Your task to perform on an android device: open app "Pinterest" (install if not already installed) and go to login screen Image 0: 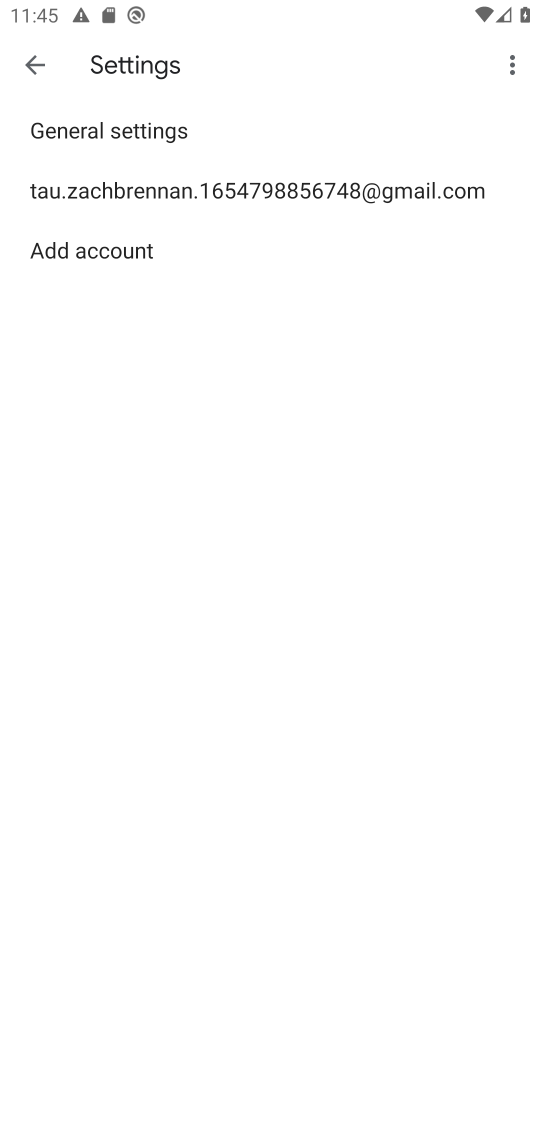
Step 0: press home button
Your task to perform on an android device: open app "Pinterest" (install if not already installed) and go to login screen Image 1: 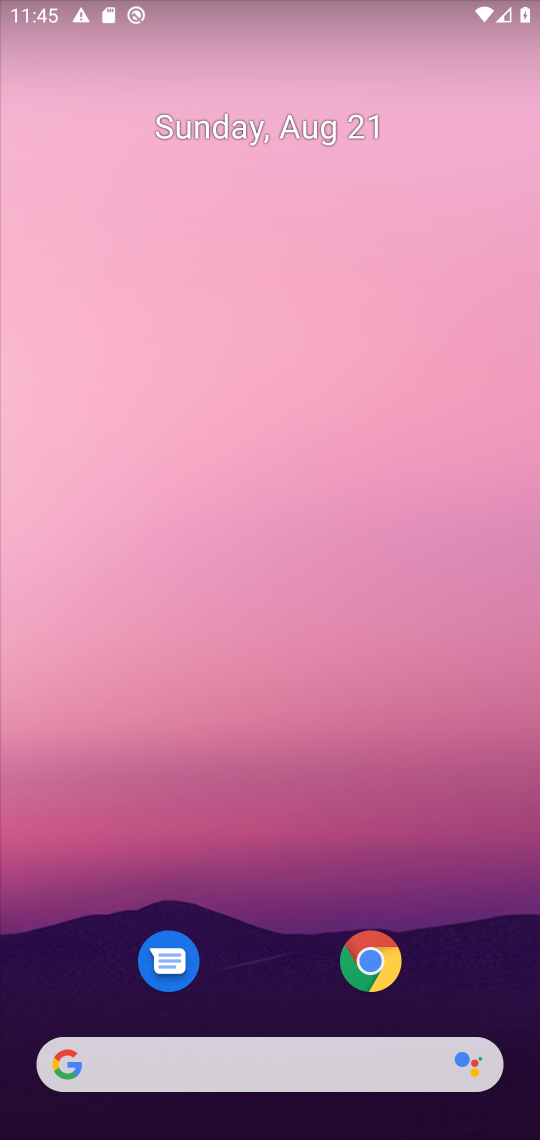
Step 1: drag from (474, 936) to (490, 130)
Your task to perform on an android device: open app "Pinterest" (install if not already installed) and go to login screen Image 2: 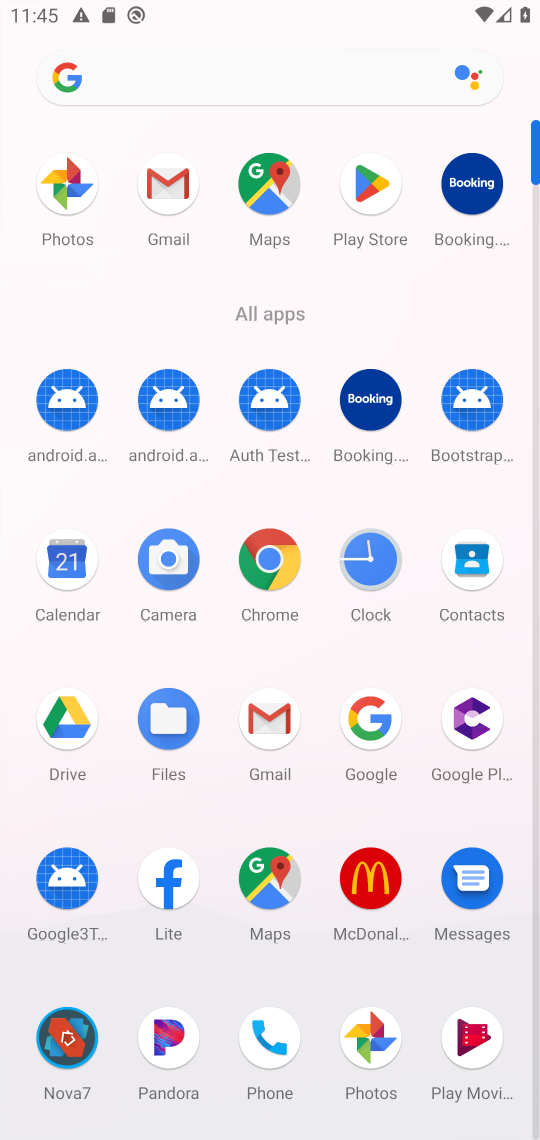
Step 2: click (368, 188)
Your task to perform on an android device: open app "Pinterest" (install if not already installed) and go to login screen Image 3: 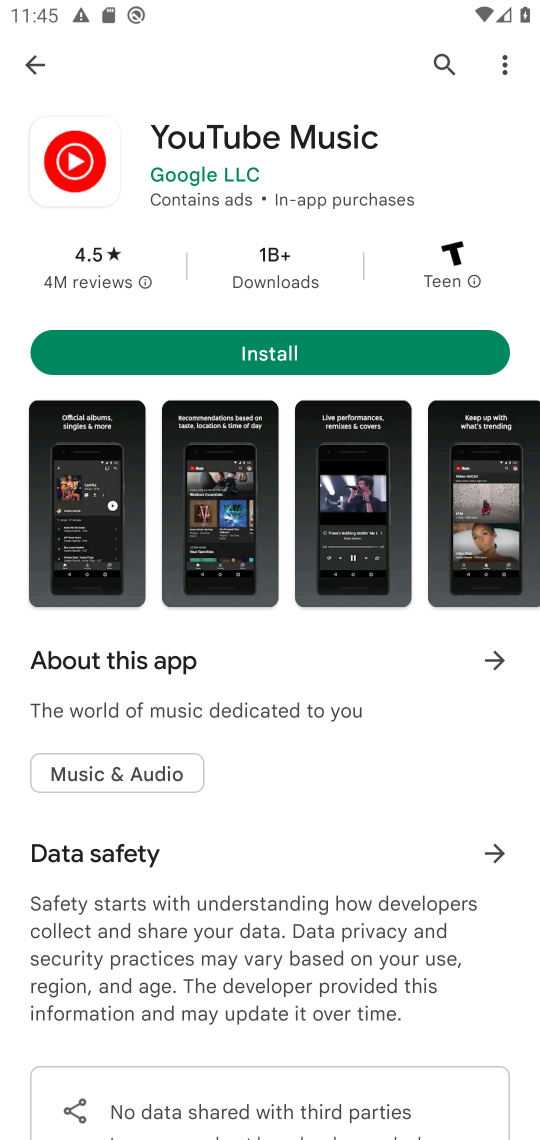
Step 3: press back button
Your task to perform on an android device: open app "Pinterest" (install if not already installed) and go to login screen Image 4: 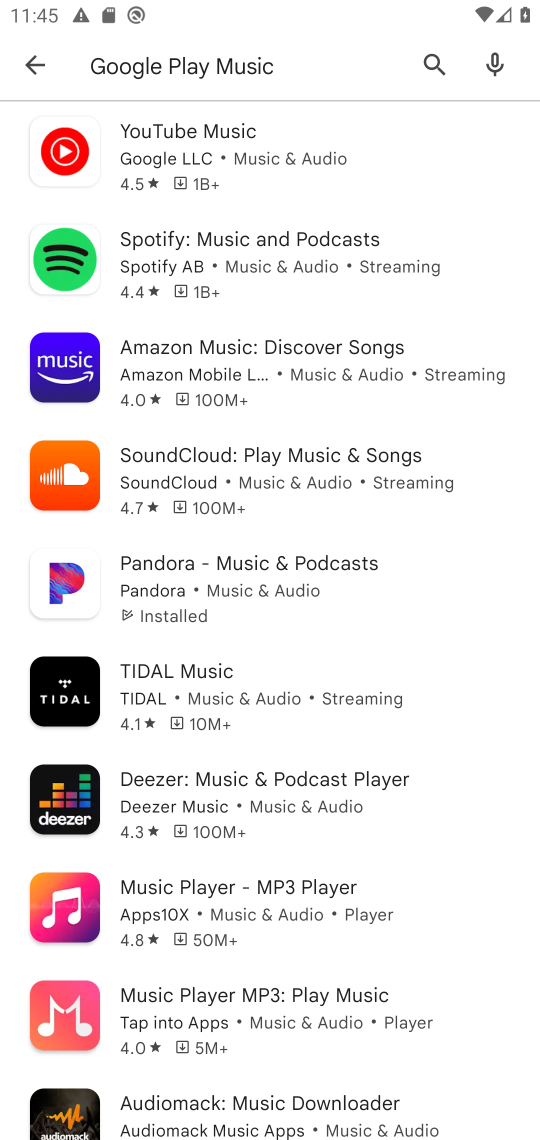
Step 4: press back button
Your task to perform on an android device: open app "Pinterest" (install if not already installed) and go to login screen Image 5: 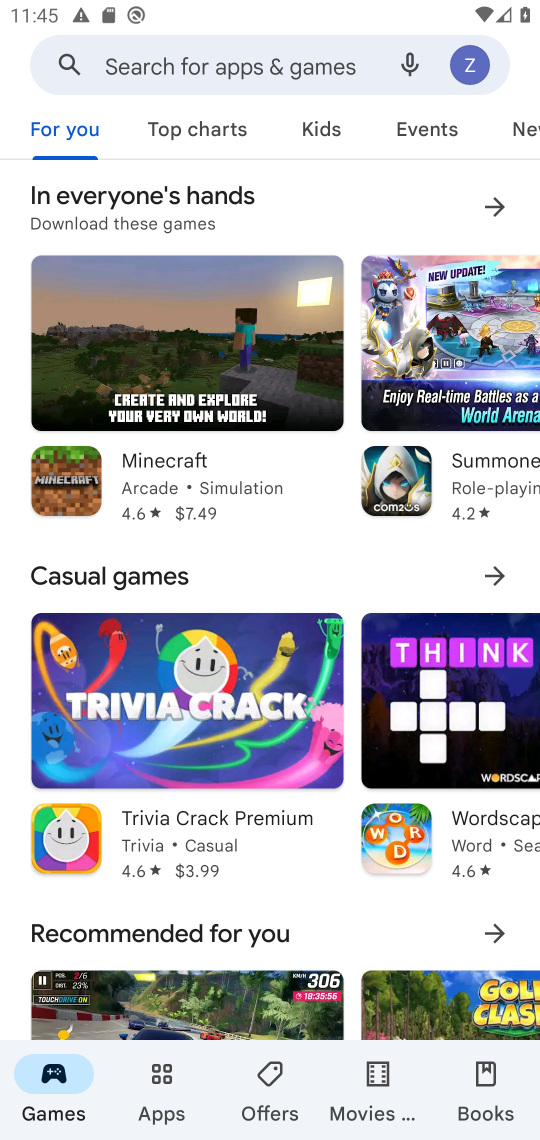
Step 5: click (320, 63)
Your task to perform on an android device: open app "Pinterest" (install if not already installed) and go to login screen Image 6: 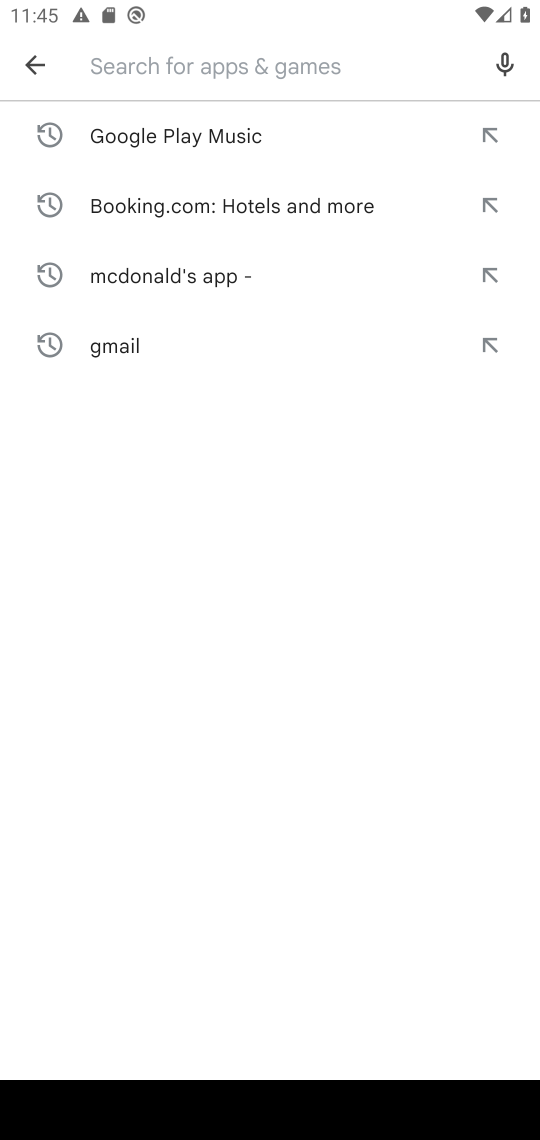
Step 6: type "pinterest"
Your task to perform on an android device: open app "Pinterest" (install if not already installed) and go to login screen Image 7: 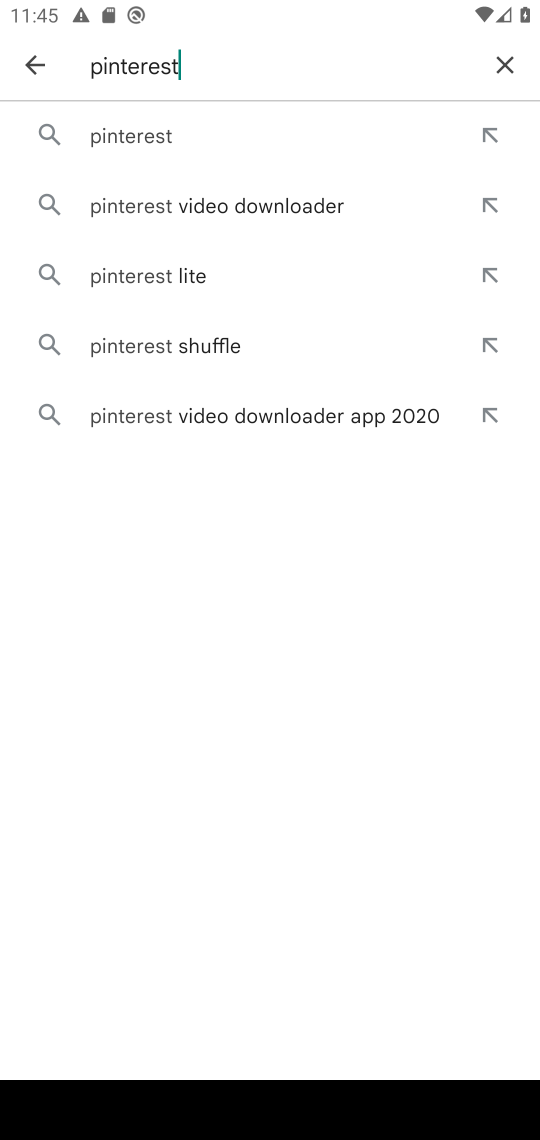
Step 7: click (168, 143)
Your task to perform on an android device: open app "Pinterest" (install if not already installed) and go to login screen Image 8: 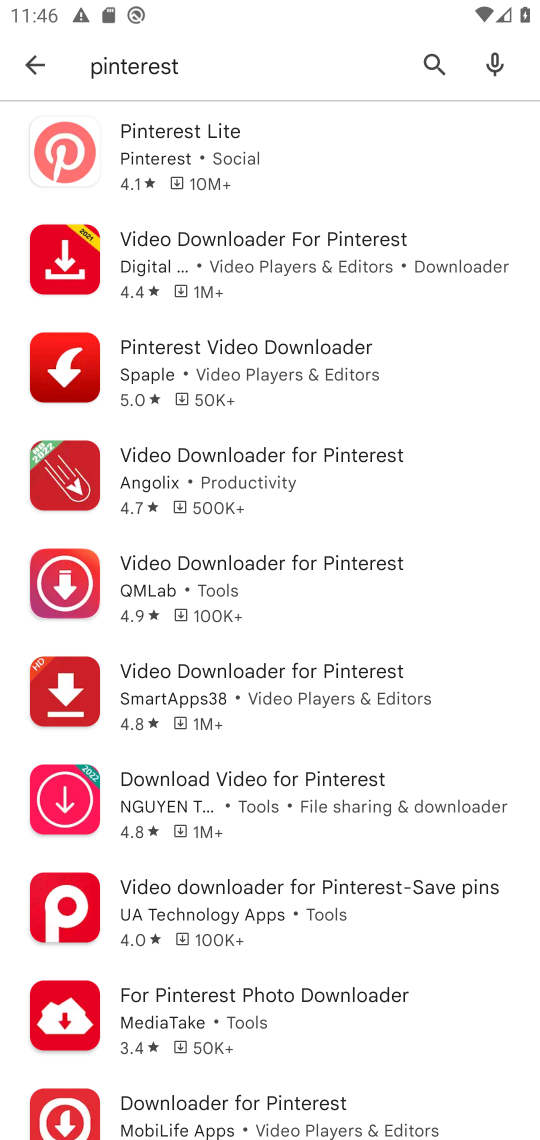
Step 8: click (247, 147)
Your task to perform on an android device: open app "Pinterest" (install if not already installed) and go to login screen Image 9: 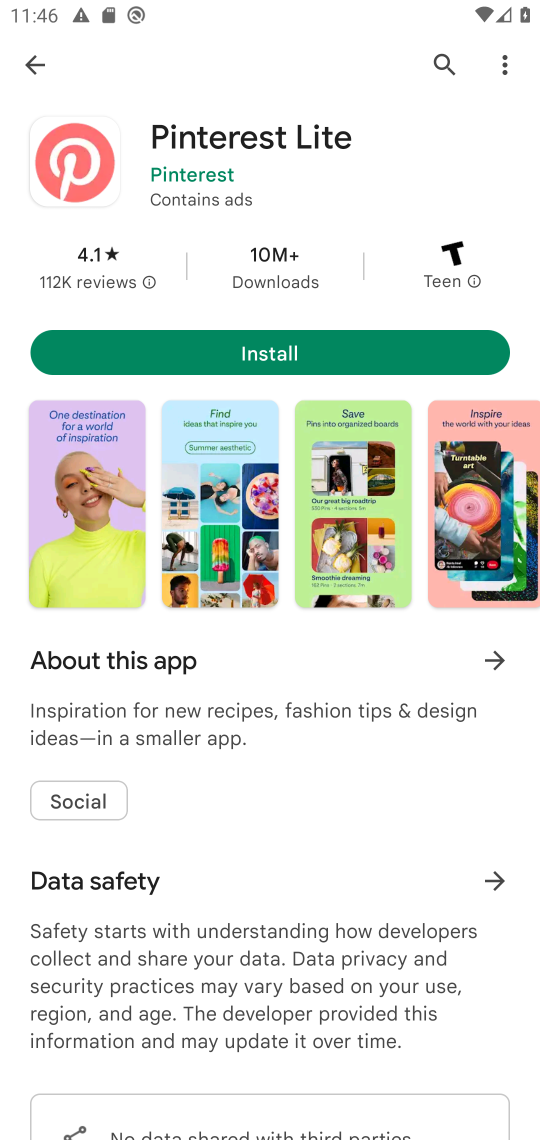
Step 9: click (237, 358)
Your task to perform on an android device: open app "Pinterest" (install if not already installed) and go to login screen Image 10: 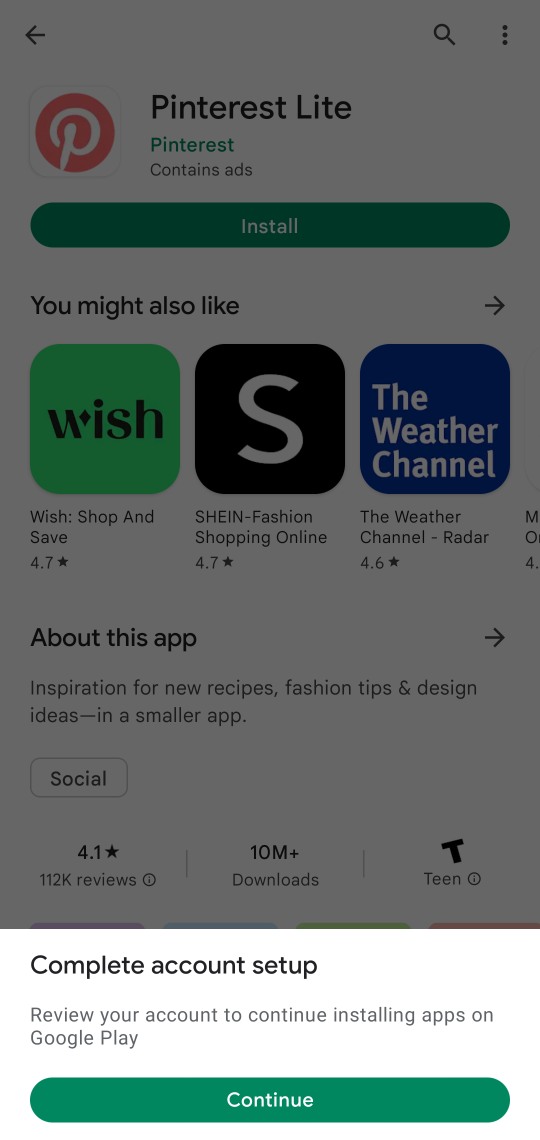
Step 10: click (298, 1102)
Your task to perform on an android device: open app "Pinterest" (install if not already installed) and go to login screen Image 11: 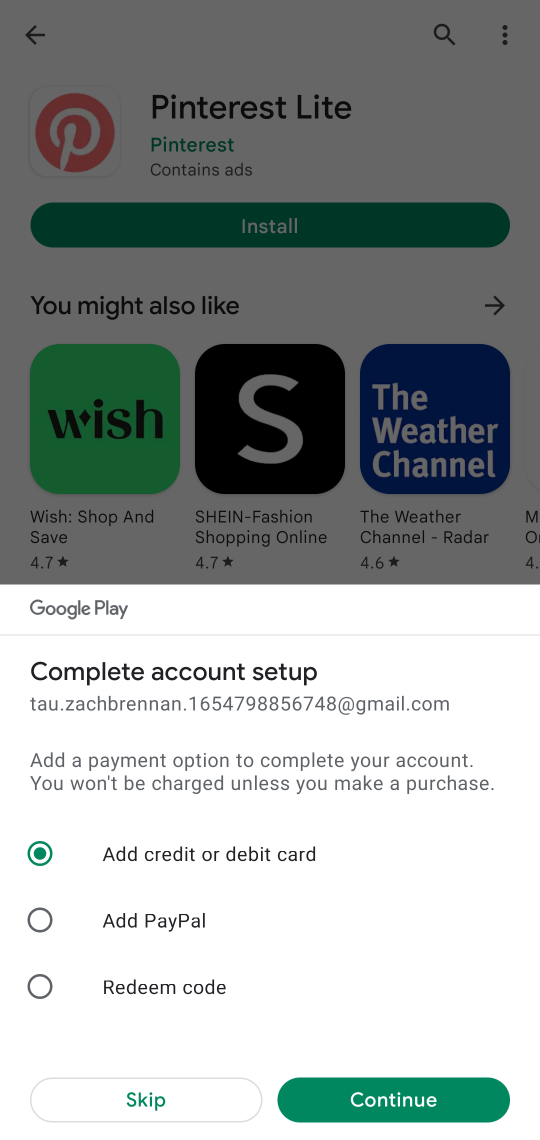
Step 11: click (191, 1099)
Your task to perform on an android device: open app "Pinterest" (install if not already installed) and go to login screen Image 12: 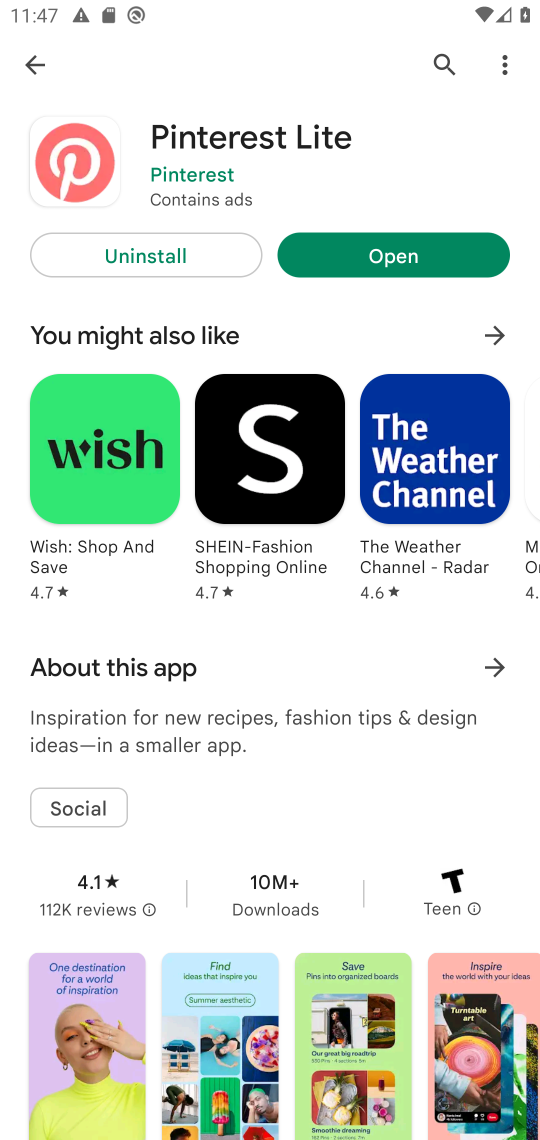
Step 12: click (447, 253)
Your task to perform on an android device: open app "Pinterest" (install if not already installed) and go to login screen Image 13: 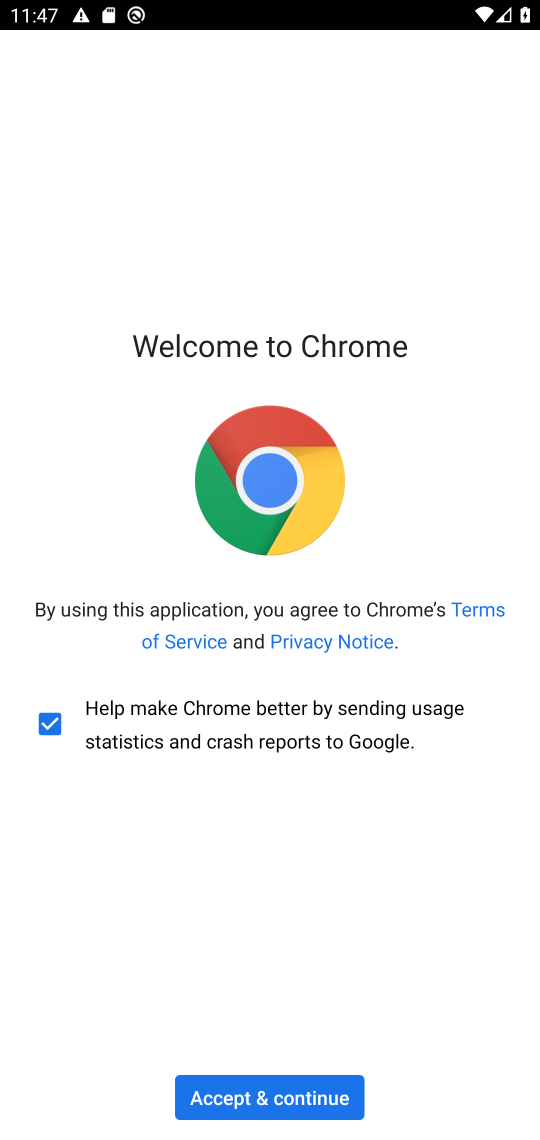
Step 13: click (305, 1113)
Your task to perform on an android device: open app "Pinterest" (install if not already installed) and go to login screen Image 14: 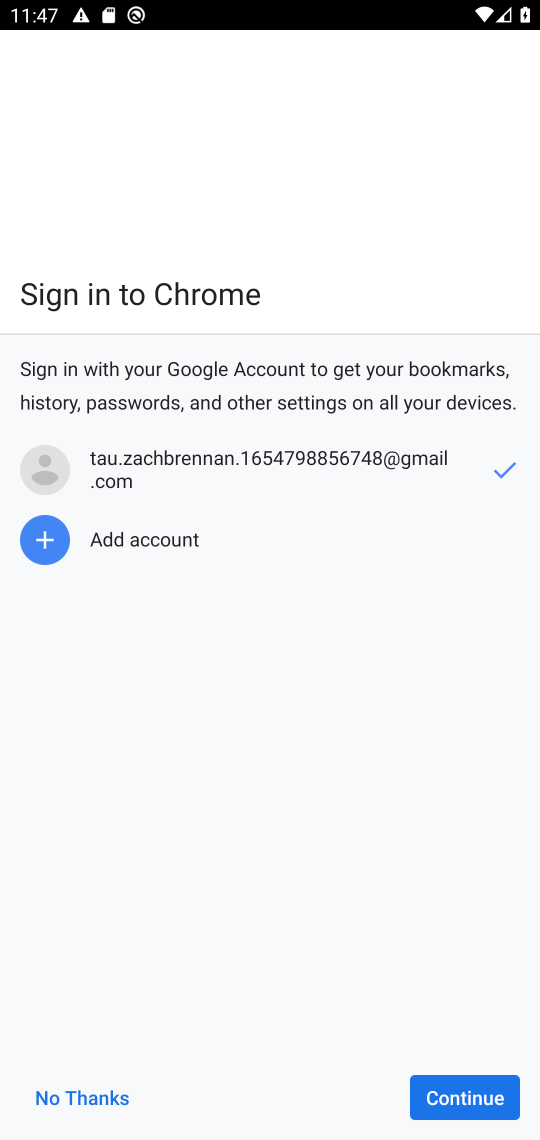
Step 14: click (456, 1087)
Your task to perform on an android device: open app "Pinterest" (install if not already installed) and go to login screen Image 15: 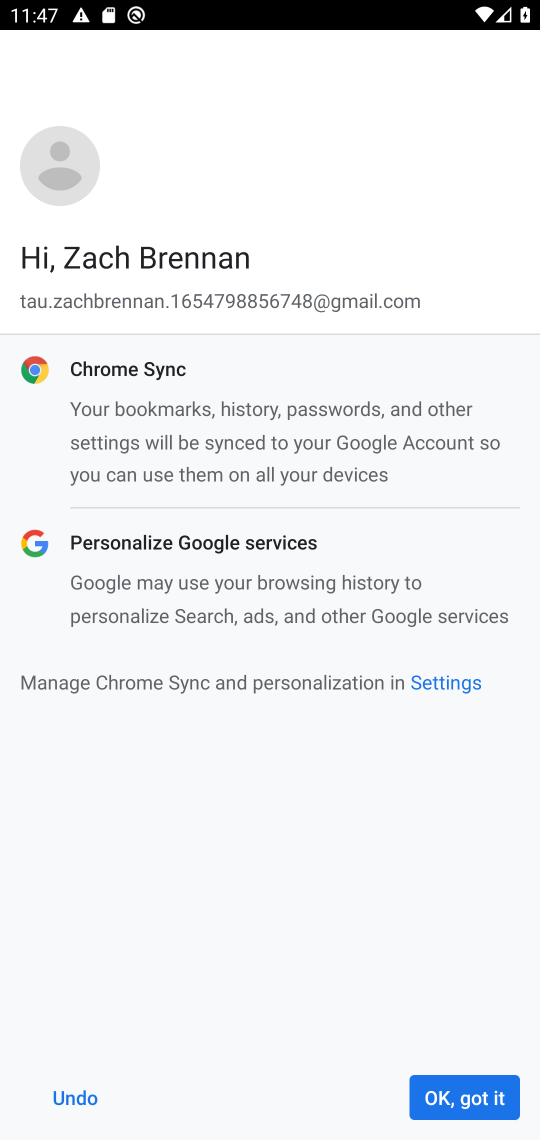
Step 15: click (478, 1103)
Your task to perform on an android device: open app "Pinterest" (install if not already installed) and go to login screen Image 16: 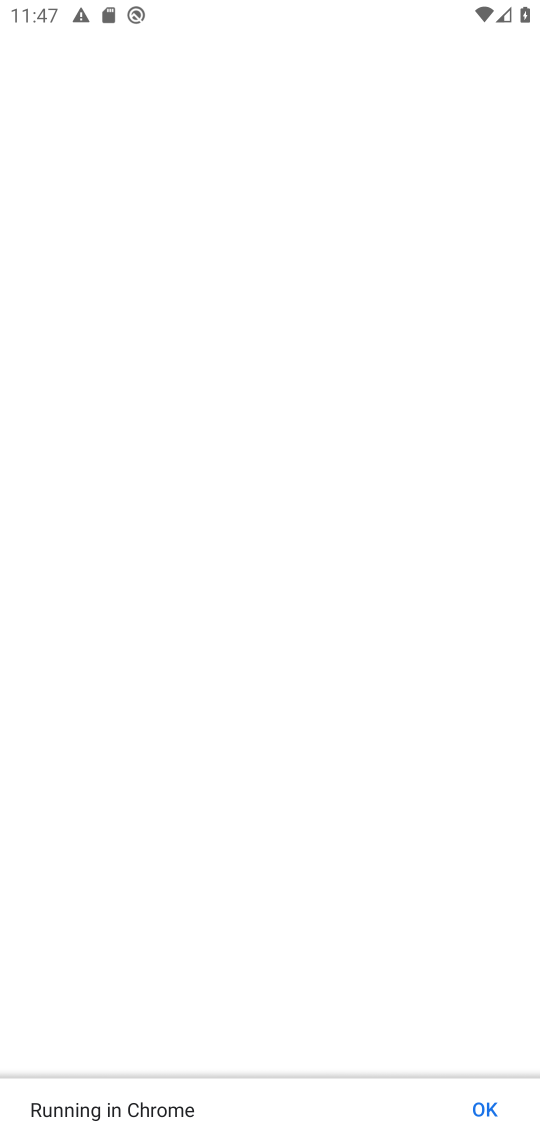
Step 16: task complete